Your task to perform on an android device: open app "Facebook" (install if not already installed) and enter user name: "resultants@gmail.com" and password: "earned" Image 0: 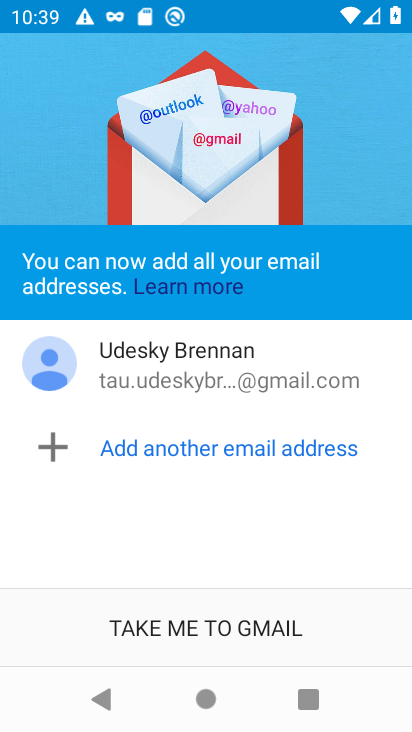
Step 0: press home button
Your task to perform on an android device: open app "Facebook" (install if not already installed) and enter user name: "resultants@gmail.com" and password: "earned" Image 1: 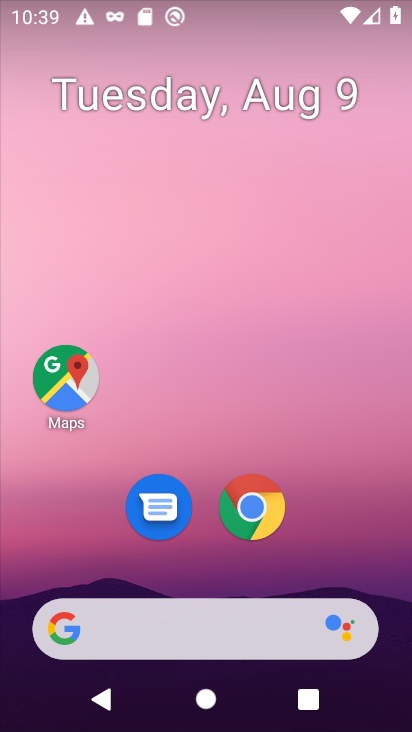
Step 1: drag from (205, 613) to (221, 186)
Your task to perform on an android device: open app "Facebook" (install if not already installed) and enter user name: "resultants@gmail.com" and password: "earned" Image 2: 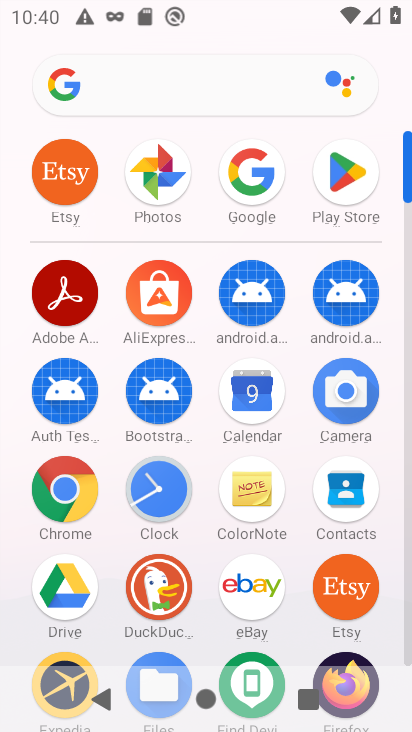
Step 2: click (352, 173)
Your task to perform on an android device: open app "Facebook" (install if not already installed) and enter user name: "resultants@gmail.com" and password: "earned" Image 3: 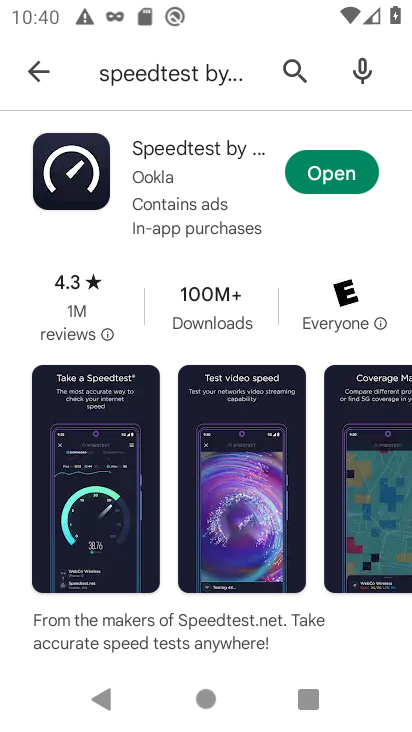
Step 3: click (292, 72)
Your task to perform on an android device: open app "Facebook" (install if not already installed) and enter user name: "resultants@gmail.com" and password: "earned" Image 4: 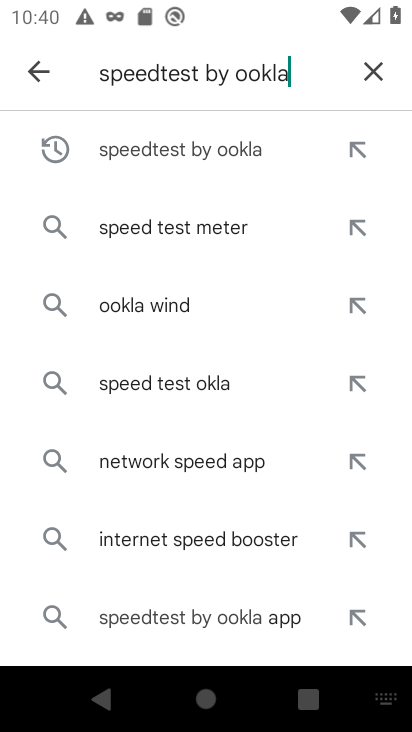
Step 4: click (369, 70)
Your task to perform on an android device: open app "Facebook" (install if not already installed) and enter user name: "resultants@gmail.com" and password: "earned" Image 5: 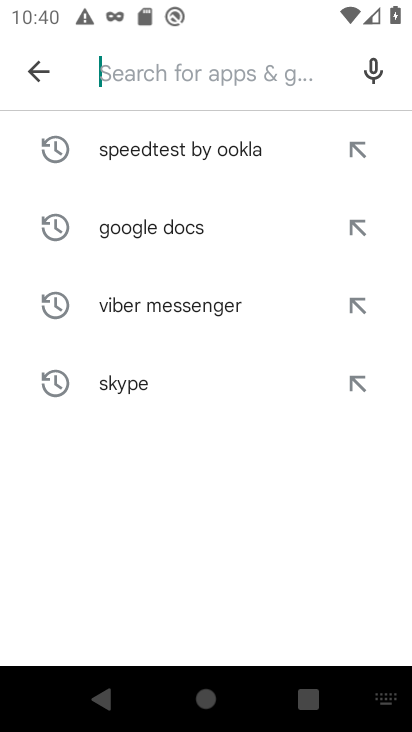
Step 5: type "Facebook"
Your task to perform on an android device: open app "Facebook" (install if not already installed) and enter user name: "resultants@gmail.com" and password: "earned" Image 6: 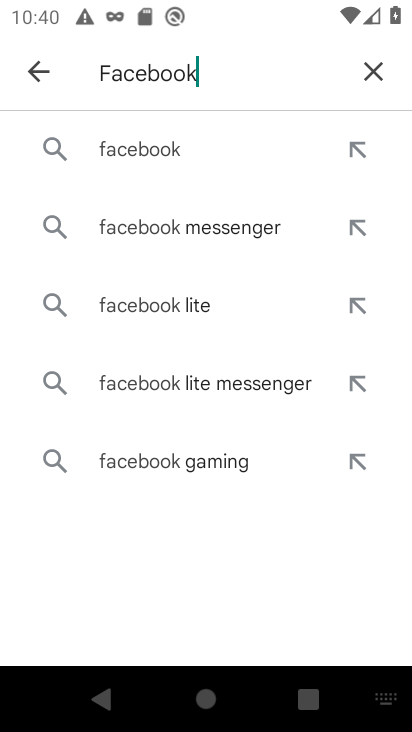
Step 6: click (137, 149)
Your task to perform on an android device: open app "Facebook" (install if not already installed) and enter user name: "resultants@gmail.com" and password: "earned" Image 7: 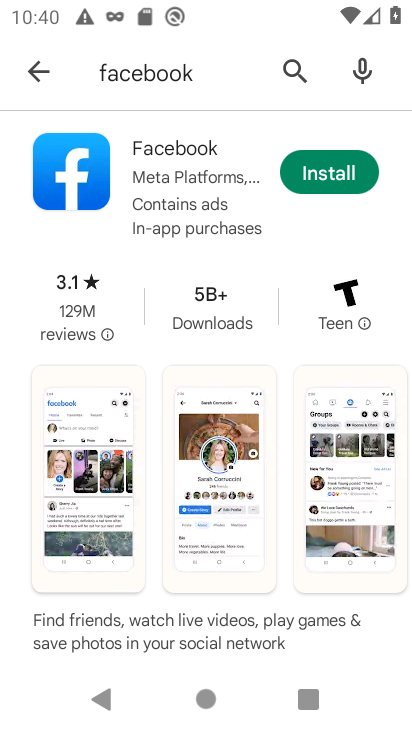
Step 7: click (328, 170)
Your task to perform on an android device: open app "Facebook" (install if not already installed) and enter user name: "resultants@gmail.com" and password: "earned" Image 8: 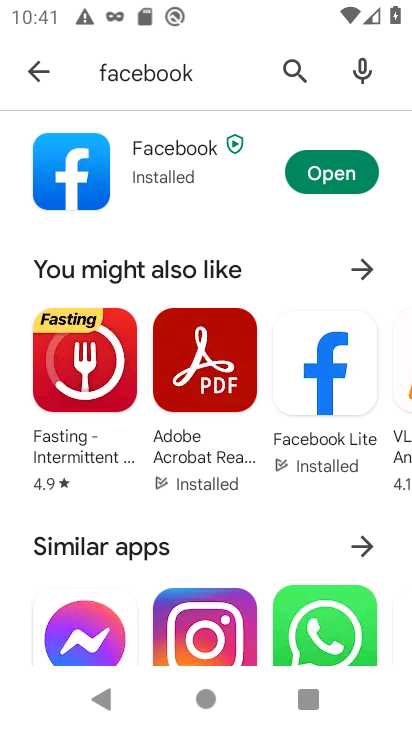
Step 8: click (334, 177)
Your task to perform on an android device: open app "Facebook" (install if not already installed) and enter user name: "resultants@gmail.com" and password: "earned" Image 9: 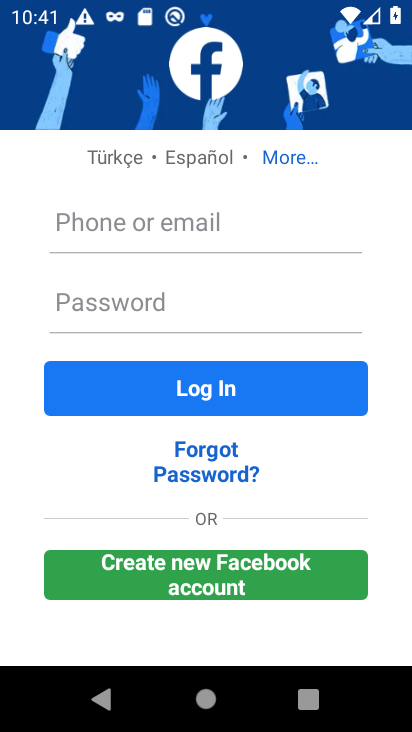
Step 9: click (161, 230)
Your task to perform on an android device: open app "Facebook" (install if not already installed) and enter user name: "resultants@gmail.com" and password: "earned" Image 10: 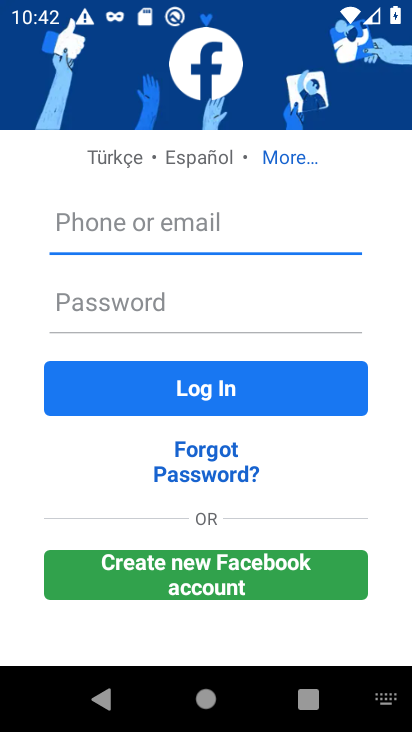
Step 10: type "resultants@gmail.com"
Your task to perform on an android device: open app "Facebook" (install if not already installed) and enter user name: "resultants@gmail.com" and password: "earned" Image 11: 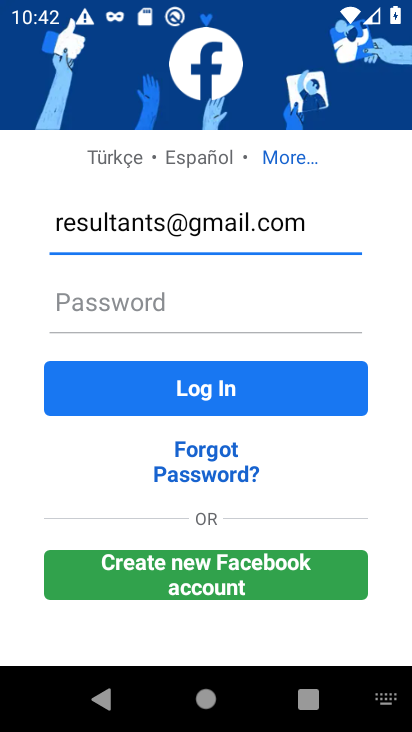
Step 11: click (190, 291)
Your task to perform on an android device: open app "Facebook" (install if not already installed) and enter user name: "resultants@gmail.com" and password: "earned" Image 12: 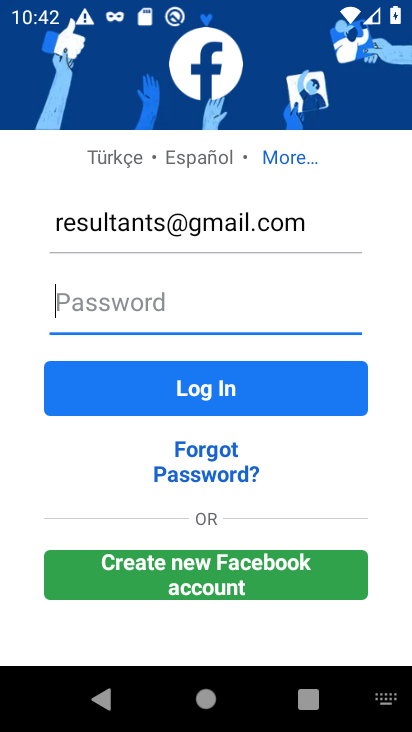
Step 12: click (145, 301)
Your task to perform on an android device: open app "Facebook" (install if not already installed) and enter user name: "resultants@gmail.com" and password: "earned" Image 13: 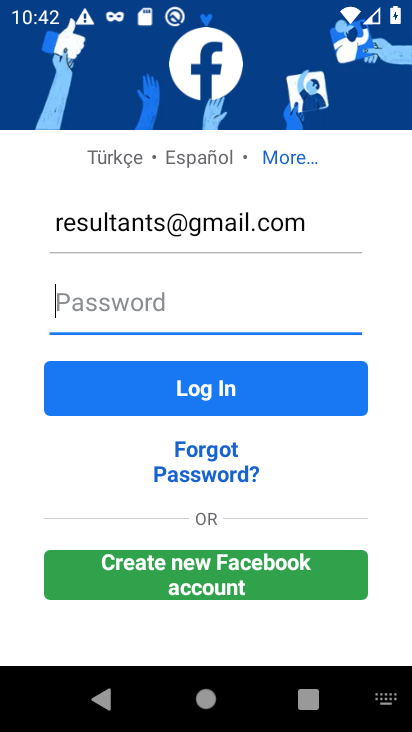
Step 13: type "earned"
Your task to perform on an android device: open app "Facebook" (install if not already installed) and enter user name: "resultants@gmail.com" and password: "earned" Image 14: 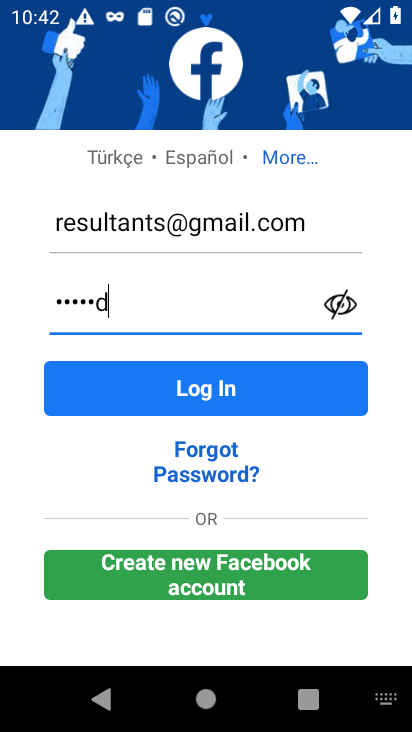
Step 14: type ""
Your task to perform on an android device: open app "Facebook" (install if not already installed) and enter user name: "resultants@gmail.com" and password: "earned" Image 15: 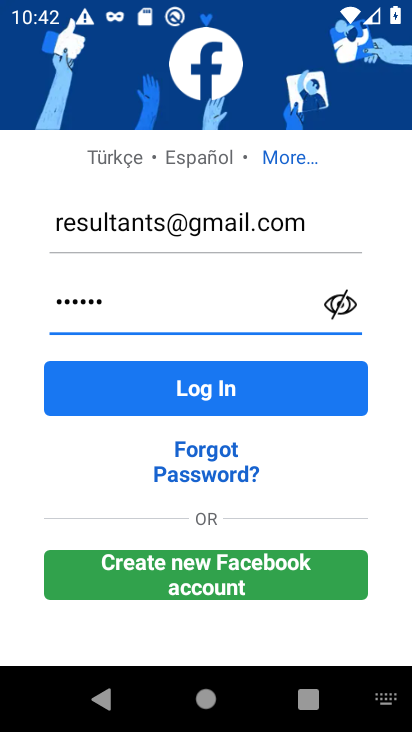
Step 15: task complete